Your task to perform on an android device: turn off wifi Image 0: 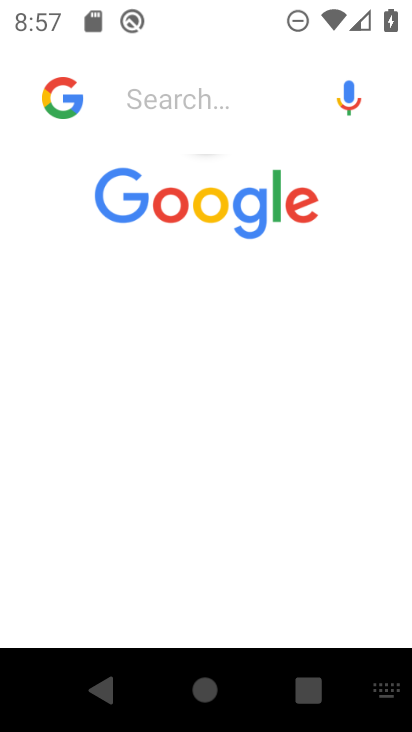
Step 0: press home button
Your task to perform on an android device: turn off wifi Image 1: 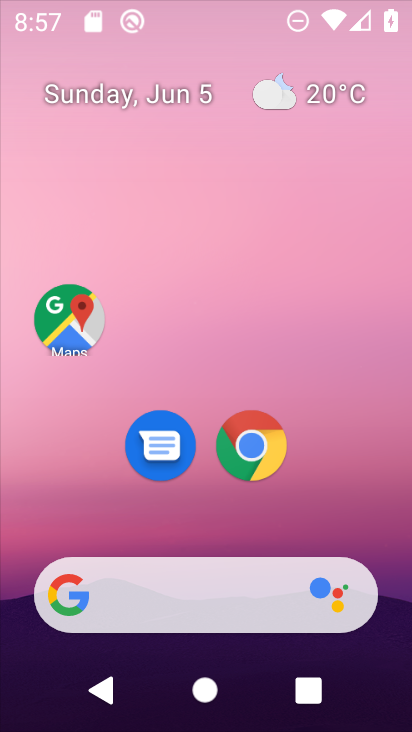
Step 1: drag from (328, 676) to (380, 370)
Your task to perform on an android device: turn off wifi Image 2: 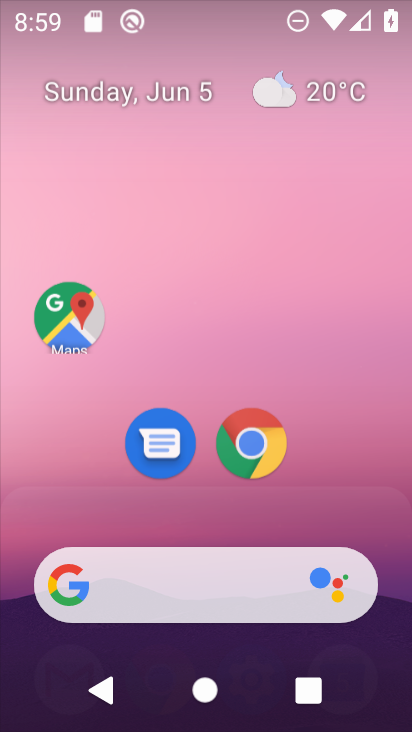
Step 2: click (241, 198)
Your task to perform on an android device: turn off wifi Image 3: 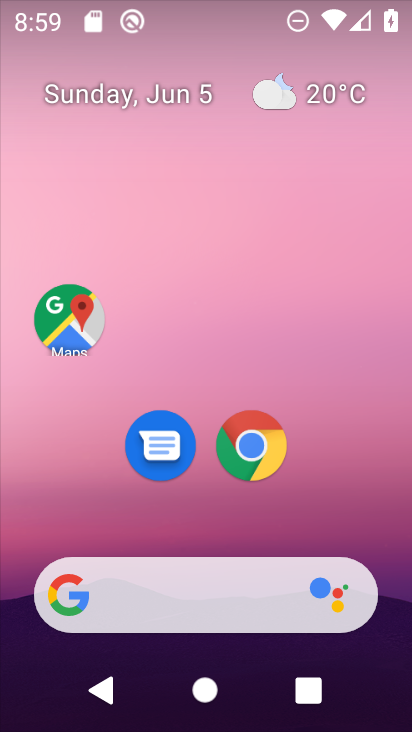
Step 3: drag from (297, 524) to (338, 2)
Your task to perform on an android device: turn off wifi Image 4: 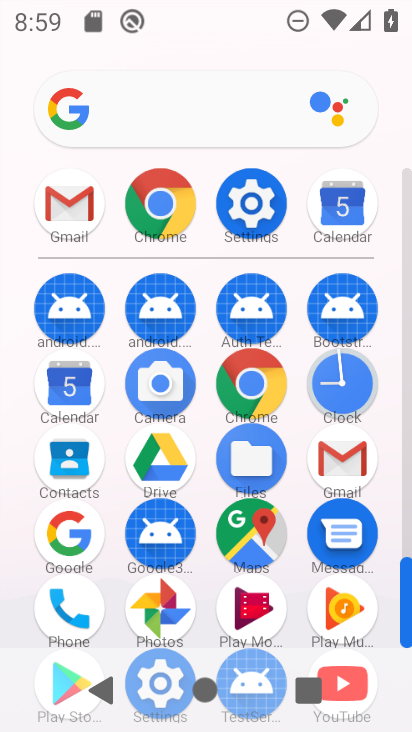
Step 4: click (254, 209)
Your task to perform on an android device: turn off wifi Image 5: 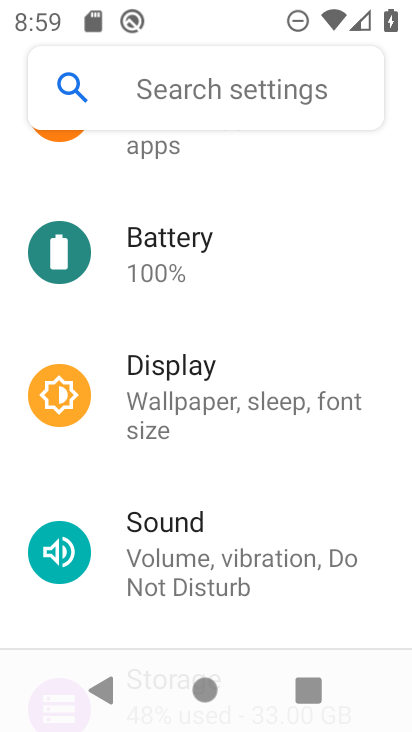
Step 5: drag from (251, 191) to (320, 673)
Your task to perform on an android device: turn off wifi Image 6: 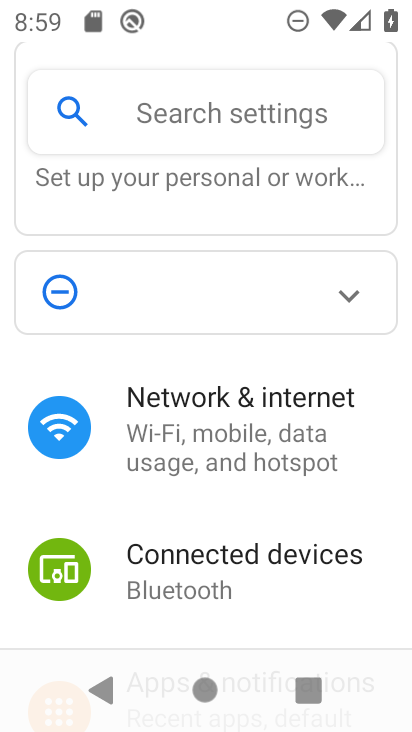
Step 6: click (275, 422)
Your task to perform on an android device: turn off wifi Image 7: 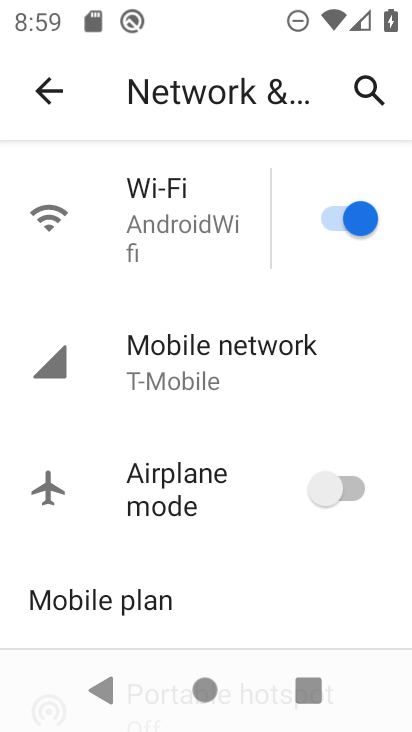
Step 7: click (186, 212)
Your task to perform on an android device: turn off wifi Image 8: 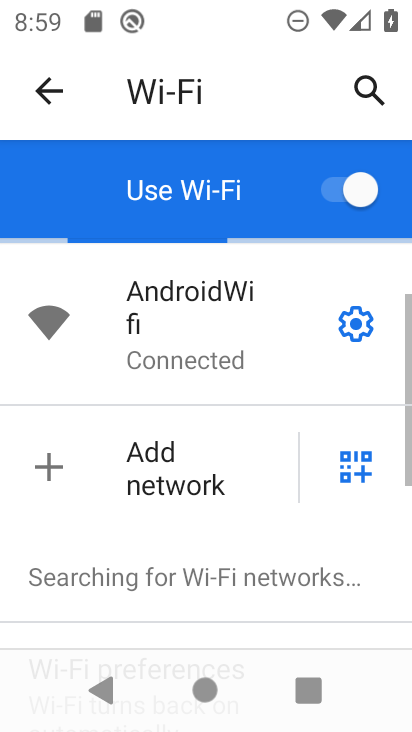
Step 8: click (331, 194)
Your task to perform on an android device: turn off wifi Image 9: 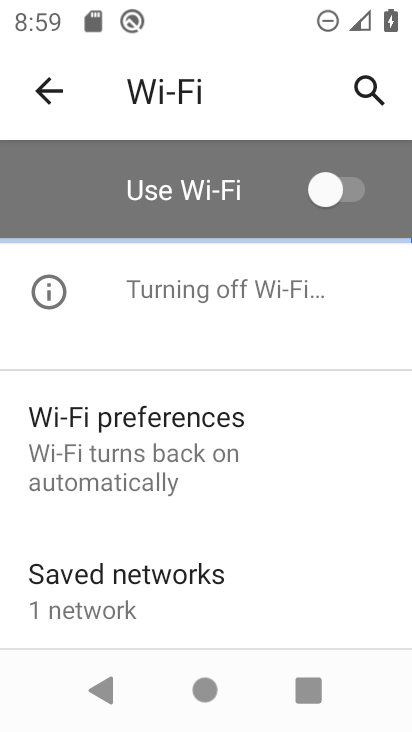
Step 9: task complete